Your task to perform on an android device: move an email to a new category in the gmail app Image 0: 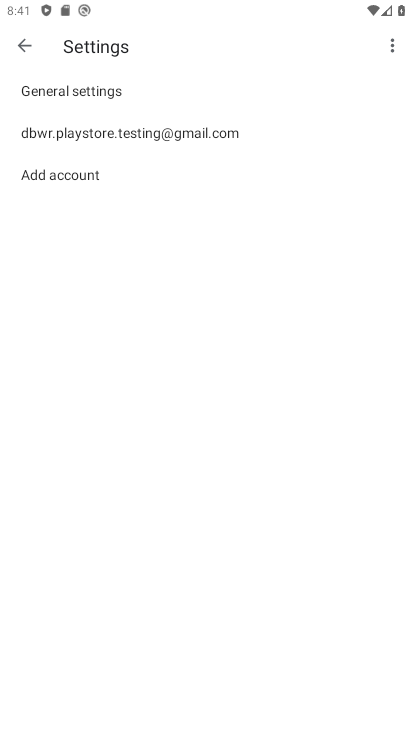
Step 0: press home button
Your task to perform on an android device: move an email to a new category in the gmail app Image 1: 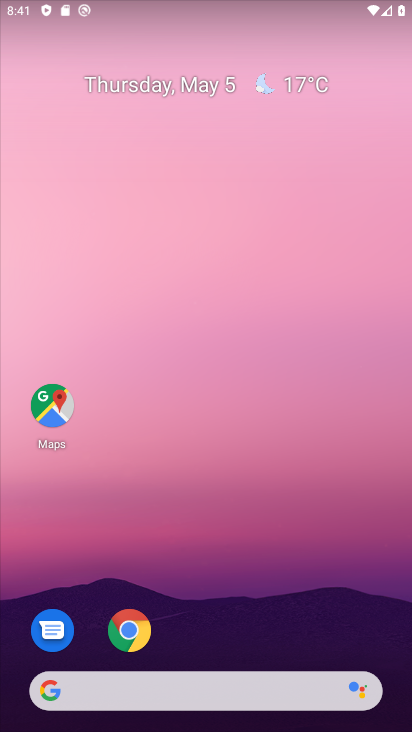
Step 1: drag from (208, 655) to (232, 75)
Your task to perform on an android device: move an email to a new category in the gmail app Image 2: 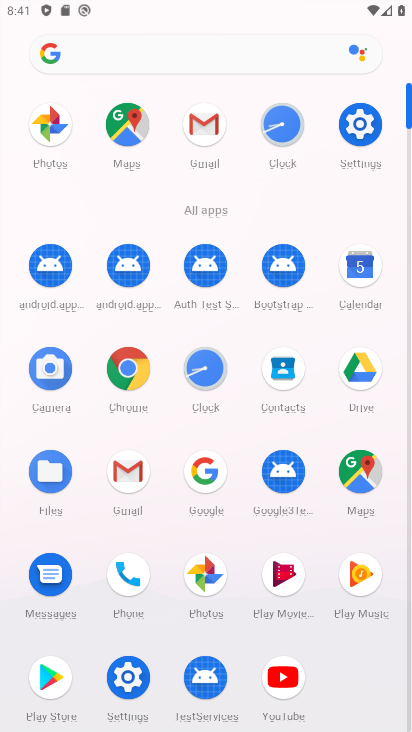
Step 2: click (210, 119)
Your task to perform on an android device: move an email to a new category in the gmail app Image 3: 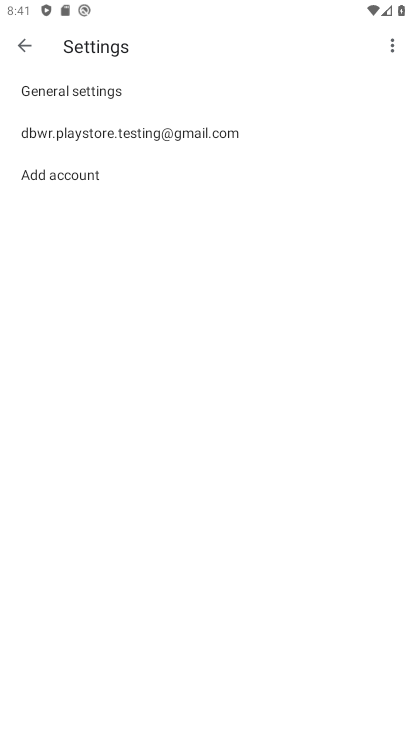
Step 3: click (26, 43)
Your task to perform on an android device: move an email to a new category in the gmail app Image 4: 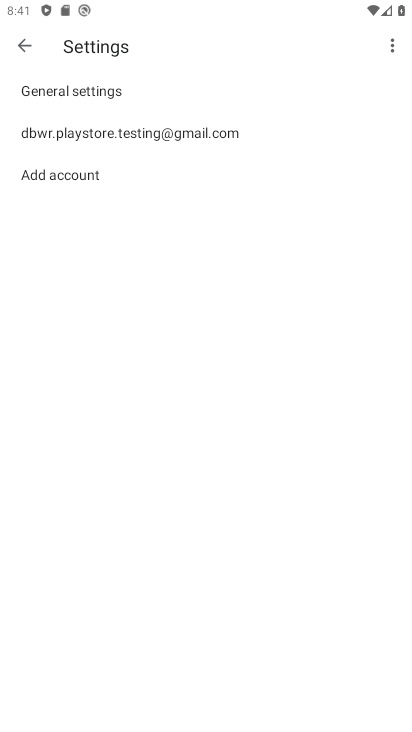
Step 4: click (28, 46)
Your task to perform on an android device: move an email to a new category in the gmail app Image 5: 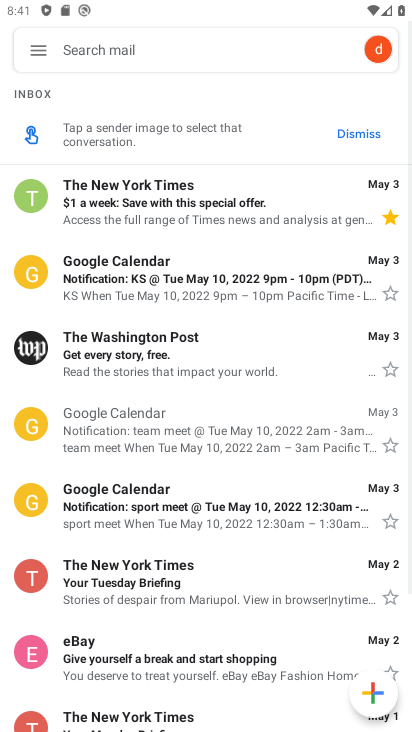
Step 5: drag from (169, 625) to (161, 92)
Your task to perform on an android device: move an email to a new category in the gmail app Image 6: 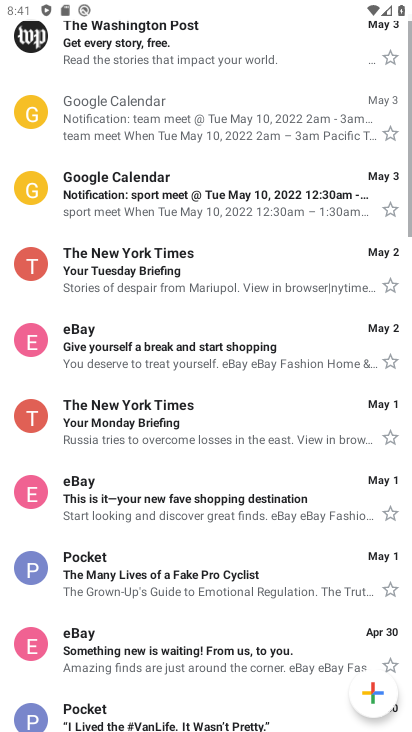
Step 6: drag from (172, 179) to (208, 731)
Your task to perform on an android device: move an email to a new category in the gmail app Image 7: 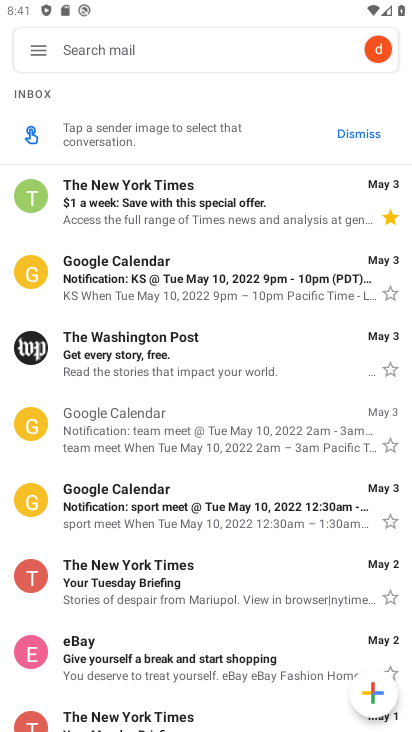
Step 7: click (22, 347)
Your task to perform on an android device: move an email to a new category in the gmail app Image 8: 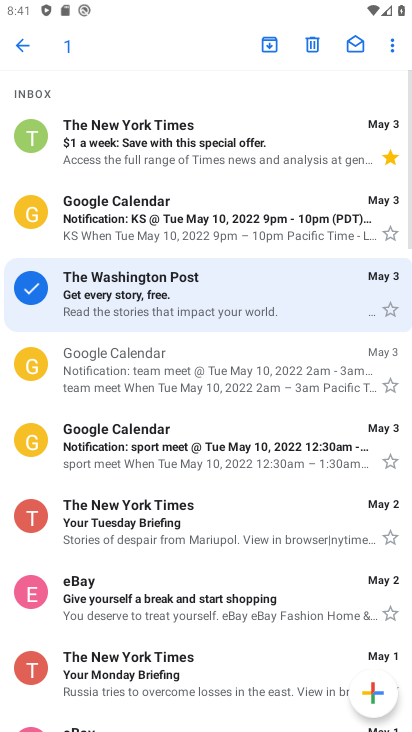
Step 8: click (384, 36)
Your task to perform on an android device: move an email to a new category in the gmail app Image 9: 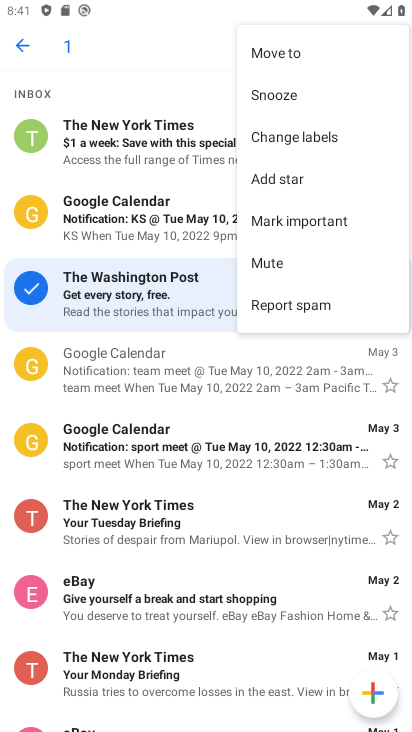
Step 9: click (299, 52)
Your task to perform on an android device: move an email to a new category in the gmail app Image 10: 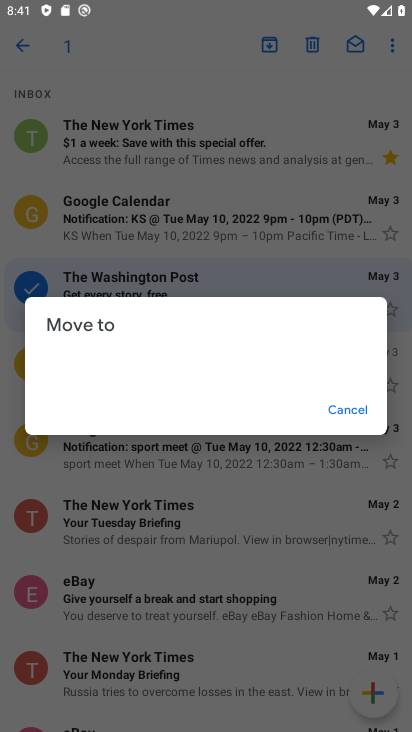
Step 10: click (209, 382)
Your task to perform on an android device: move an email to a new category in the gmail app Image 11: 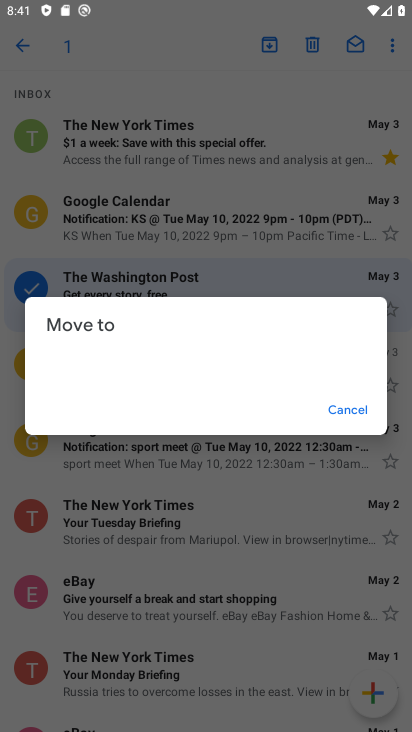
Step 11: click (77, 358)
Your task to perform on an android device: move an email to a new category in the gmail app Image 12: 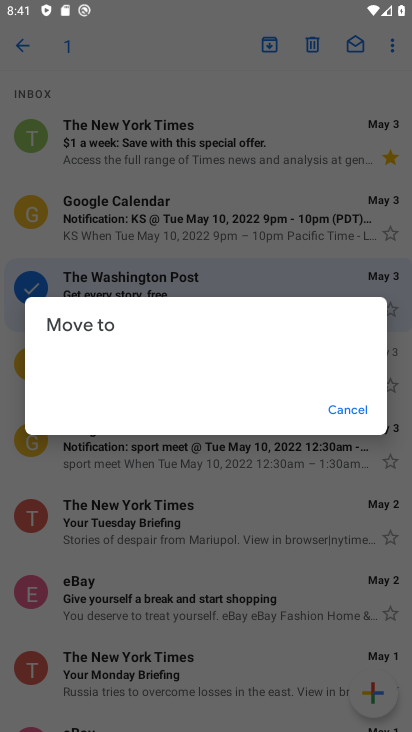
Step 12: click (351, 410)
Your task to perform on an android device: move an email to a new category in the gmail app Image 13: 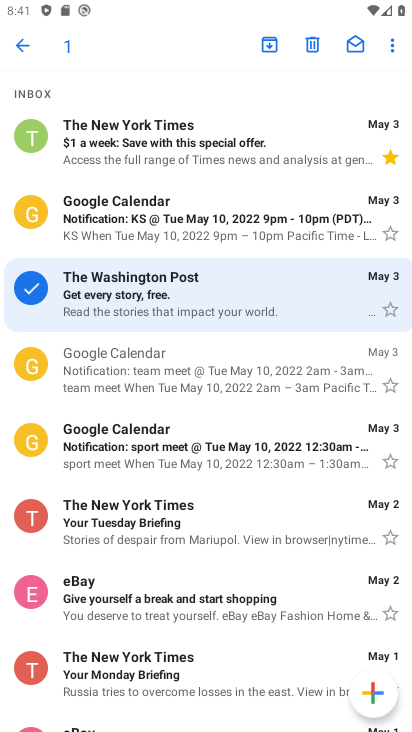
Step 13: click (388, 41)
Your task to perform on an android device: move an email to a new category in the gmail app Image 14: 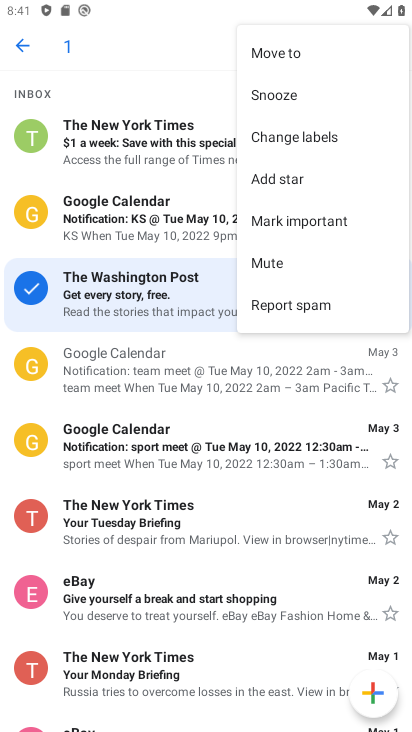
Step 14: click (273, 48)
Your task to perform on an android device: move an email to a new category in the gmail app Image 15: 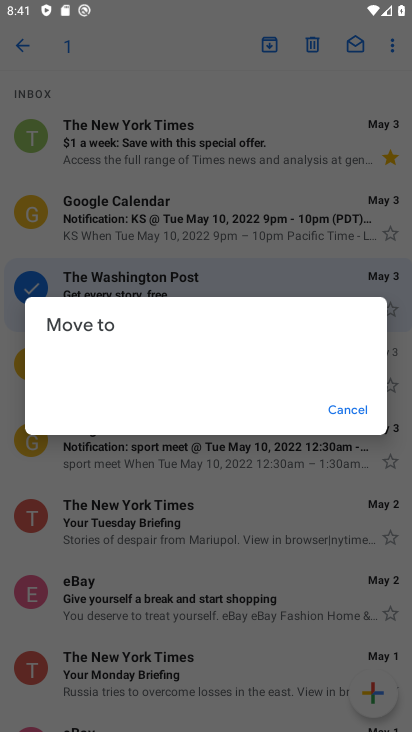
Step 15: task complete